Your task to perform on an android device: Clear the shopping cart on bestbuy. Search for logitech g910 on bestbuy, select the first entry, add it to the cart, then select checkout. Image 0: 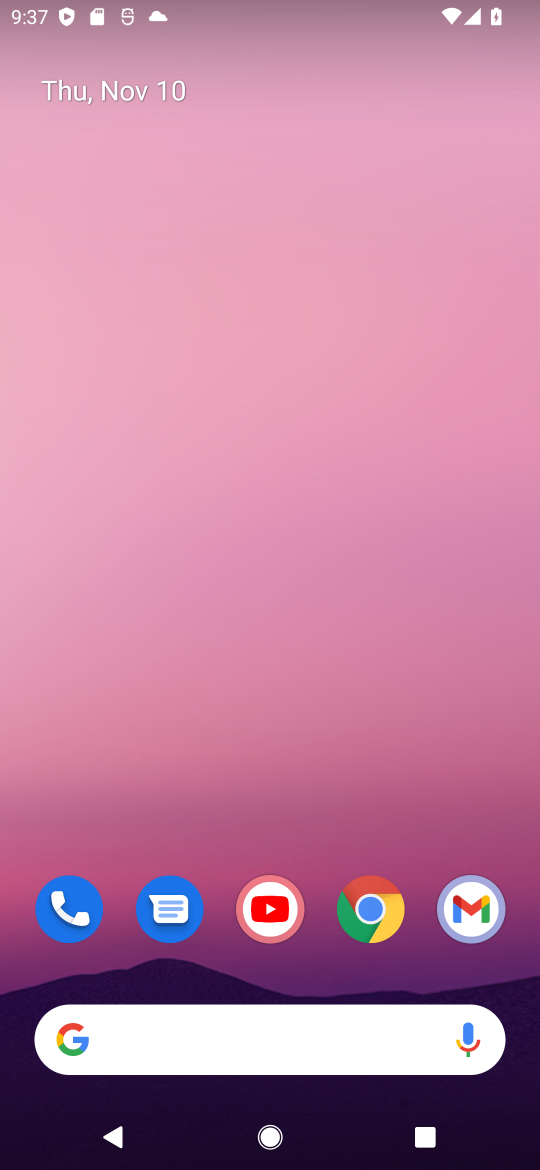
Step 0: drag from (295, 750) to (316, 361)
Your task to perform on an android device: Clear the shopping cart on bestbuy. Search for logitech g910 on bestbuy, select the first entry, add it to the cart, then select checkout. Image 1: 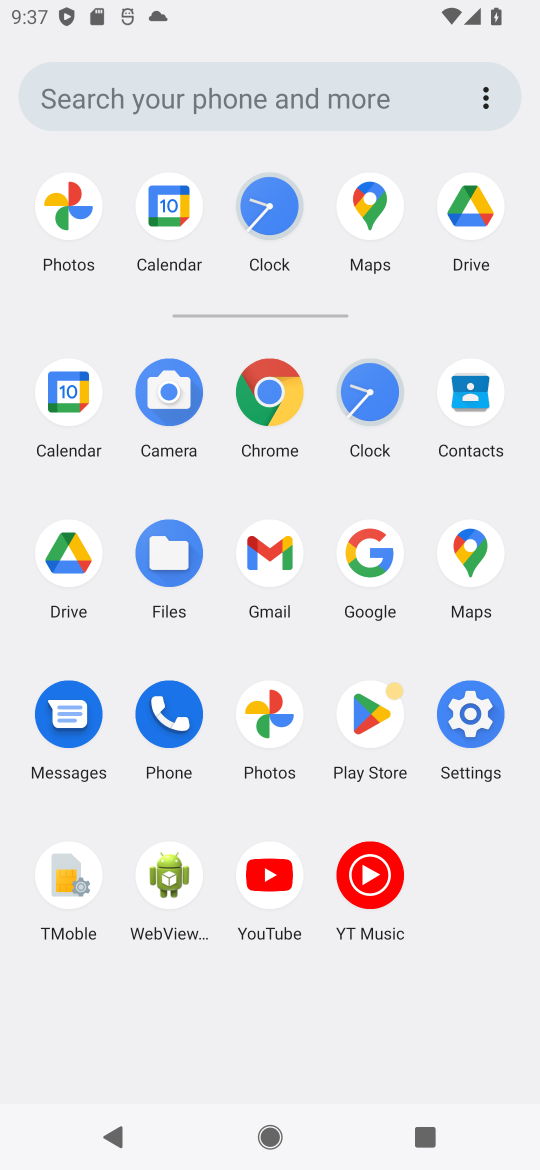
Step 1: click (359, 533)
Your task to perform on an android device: Clear the shopping cart on bestbuy. Search for logitech g910 on bestbuy, select the first entry, add it to the cart, then select checkout. Image 2: 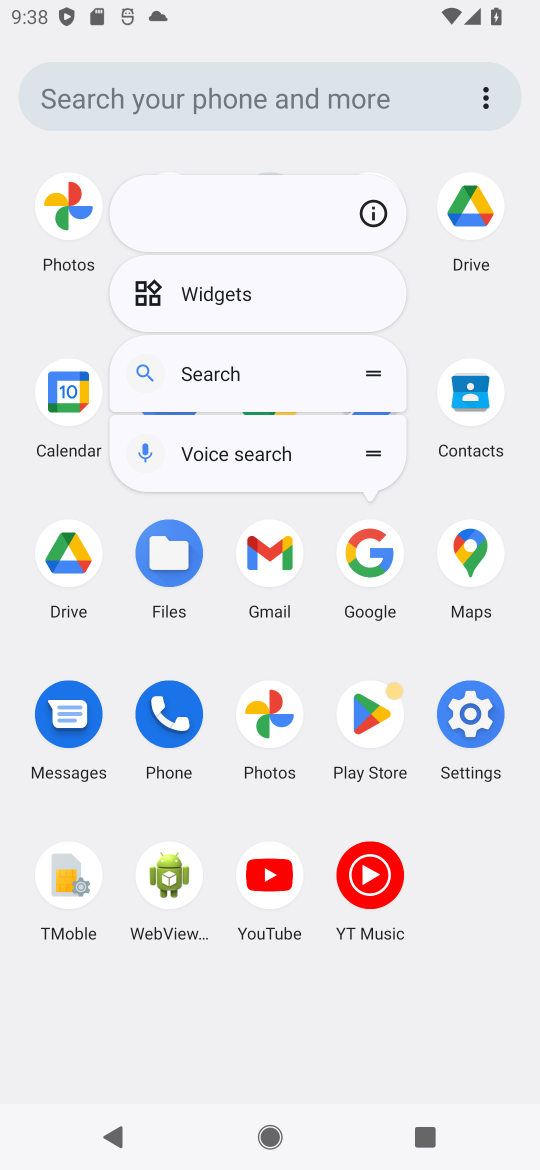
Step 2: click (373, 537)
Your task to perform on an android device: Clear the shopping cart on bestbuy. Search for logitech g910 on bestbuy, select the first entry, add it to the cart, then select checkout. Image 3: 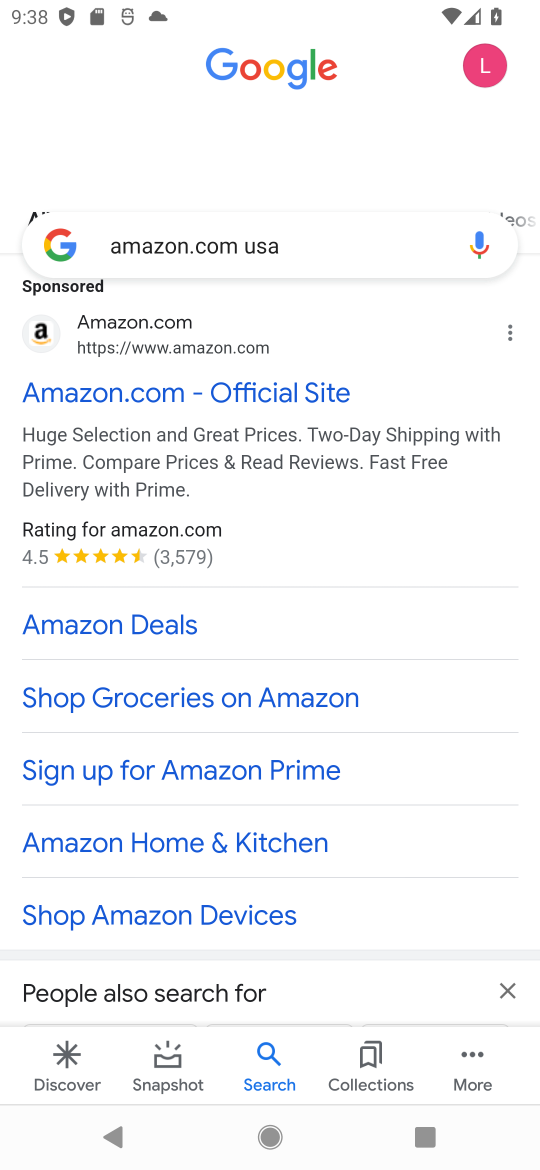
Step 3: click (234, 245)
Your task to perform on an android device: Clear the shopping cart on bestbuy. Search for logitech g910 on bestbuy, select the first entry, add it to the cart, then select checkout. Image 4: 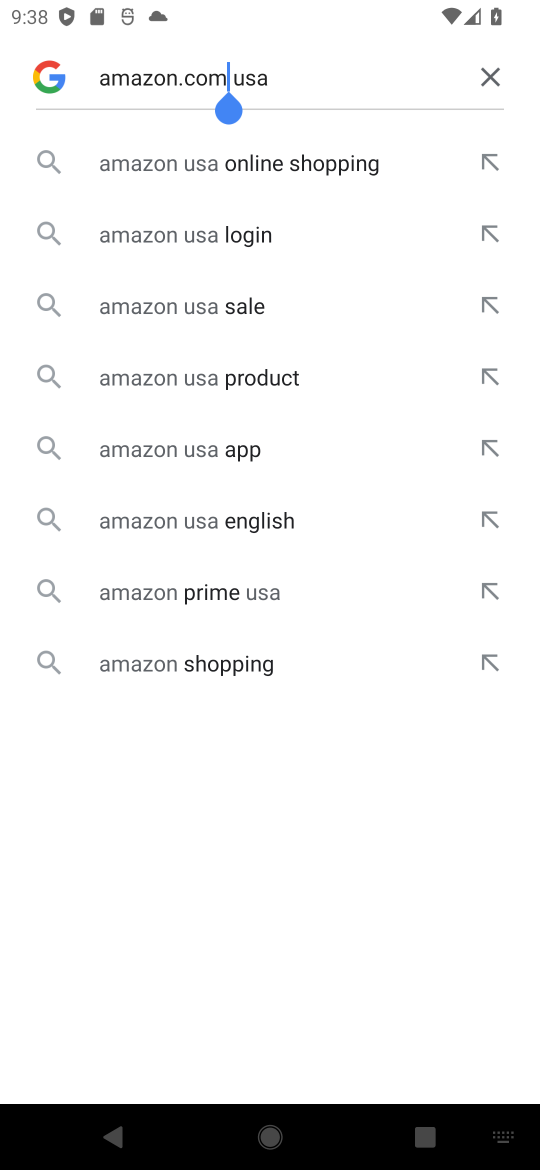
Step 4: click (494, 75)
Your task to perform on an android device: Clear the shopping cart on bestbuy. Search for logitech g910 on bestbuy, select the first entry, add it to the cart, then select checkout. Image 5: 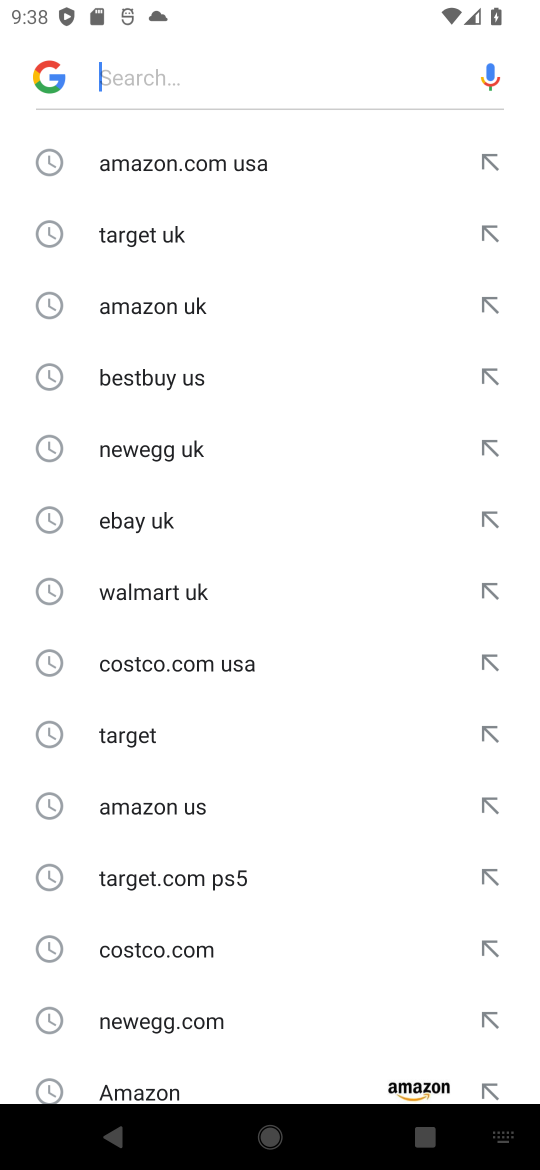
Step 5: click (195, 62)
Your task to perform on an android device: Clear the shopping cart on bestbuy. Search for logitech g910 on bestbuy, select the first entry, add it to the cart, then select checkout. Image 6: 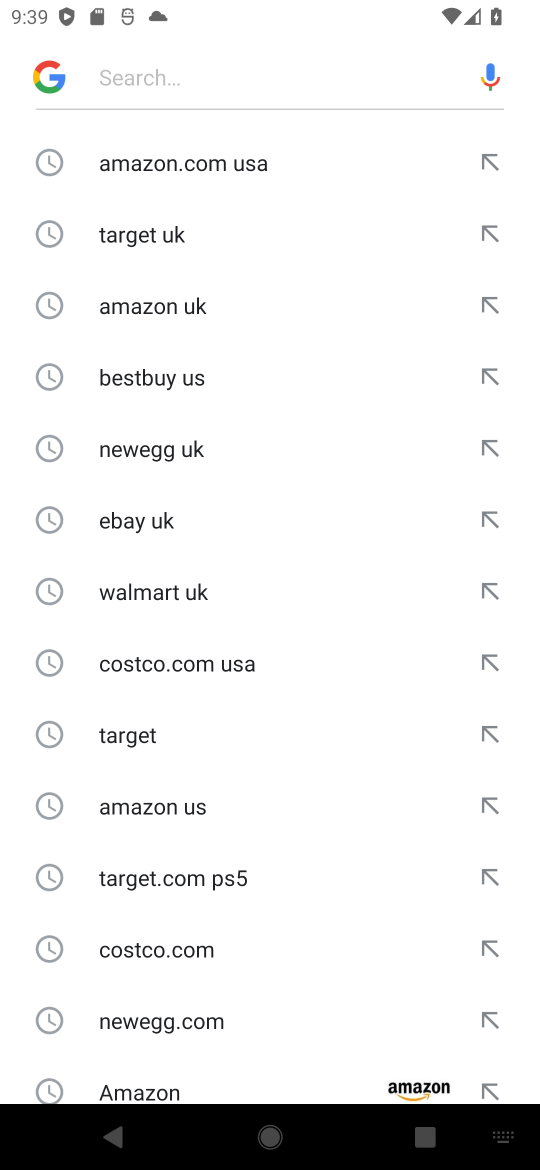
Step 6: type "bestbuy "
Your task to perform on an android device: Clear the shopping cart on bestbuy. Search for logitech g910 on bestbuy, select the first entry, add it to the cart, then select checkout. Image 7: 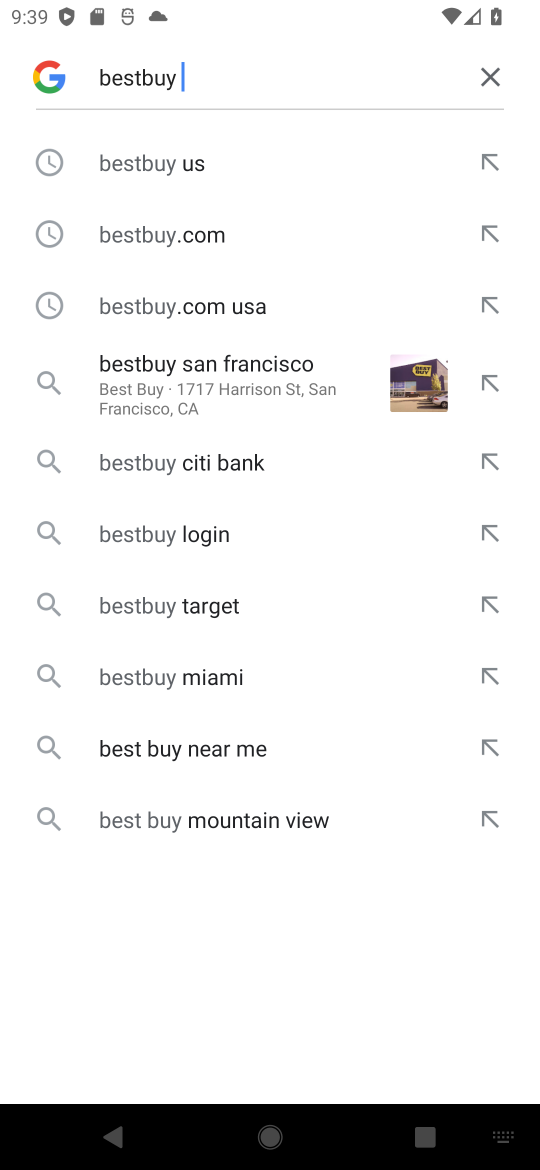
Step 7: click (138, 163)
Your task to perform on an android device: Clear the shopping cart on bestbuy. Search for logitech g910 on bestbuy, select the first entry, add it to the cart, then select checkout. Image 8: 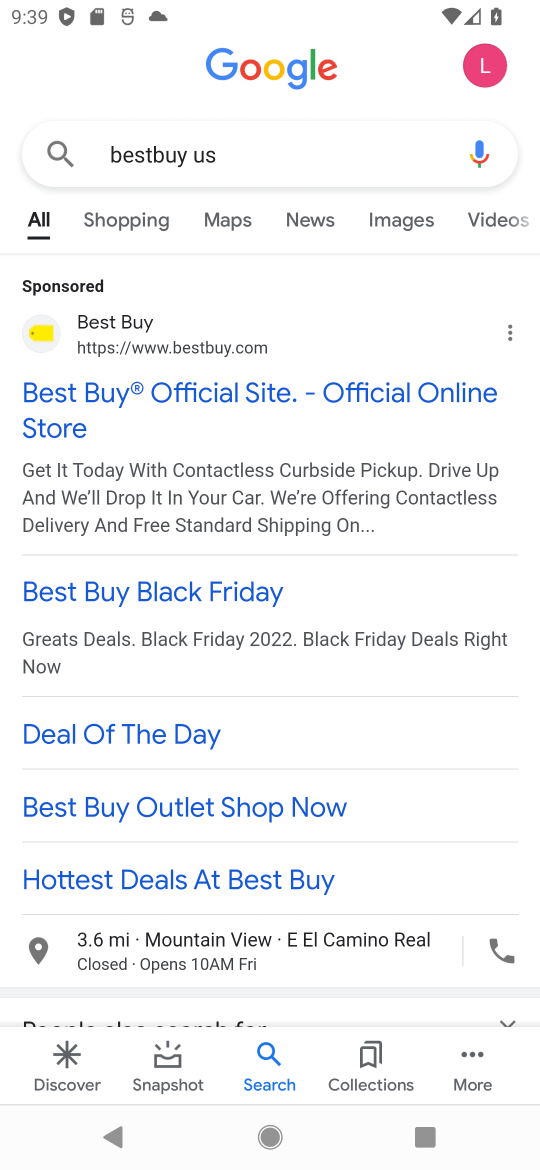
Step 8: click (33, 329)
Your task to perform on an android device: Clear the shopping cart on bestbuy. Search for logitech g910 on bestbuy, select the first entry, add it to the cart, then select checkout. Image 9: 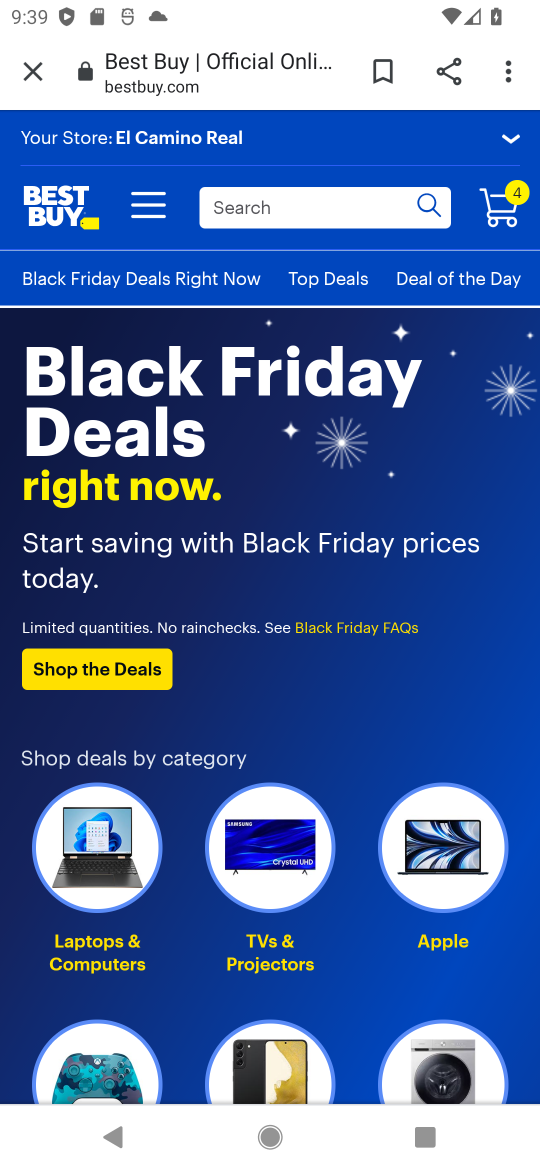
Step 9: click (315, 187)
Your task to perform on an android device: Clear the shopping cart on bestbuy. Search for logitech g910 on bestbuy, select the first entry, add it to the cart, then select checkout. Image 10: 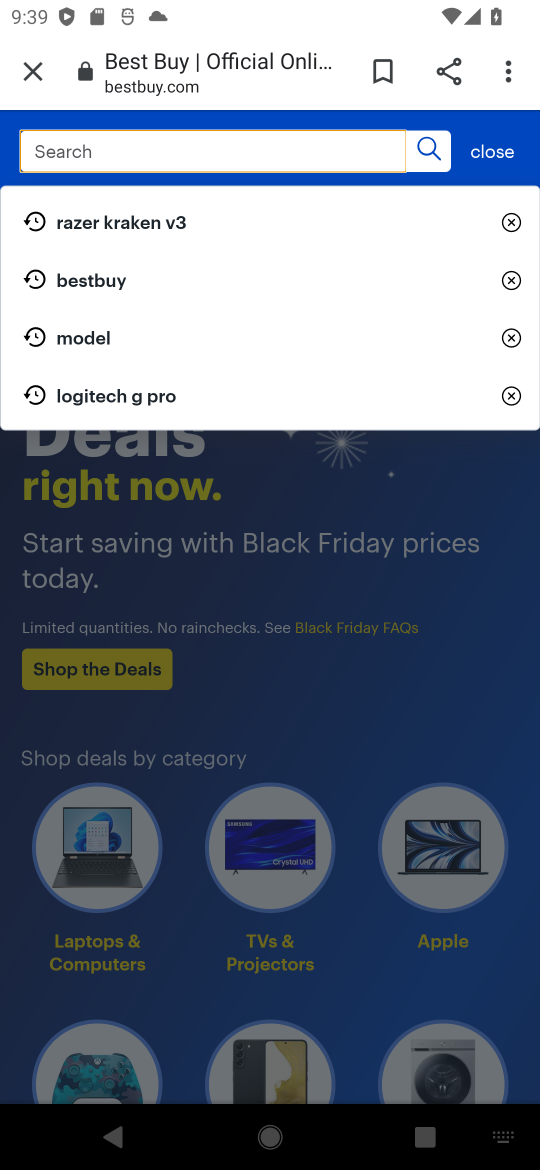
Step 10: type "logitech g910  "
Your task to perform on an android device: Clear the shopping cart on bestbuy. Search for logitech g910 on bestbuy, select the first entry, add it to the cart, then select checkout. Image 11: 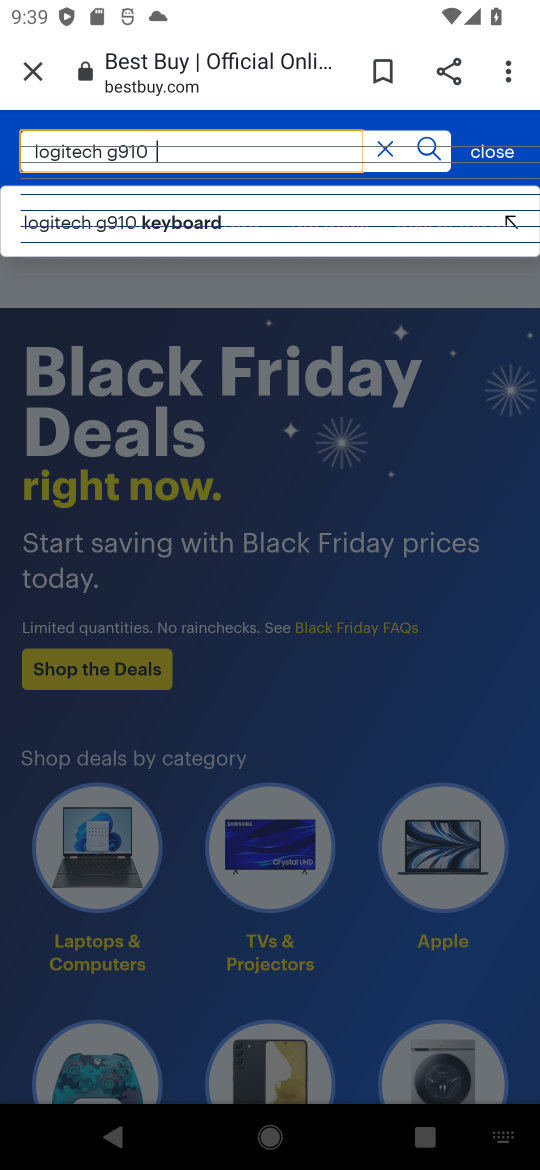
Step 11: click (153, 199)
Your task to perform on an android device: Clear the shopping cart on bestbuy. Search for logitech g910 on bestbuy, select the first entry, add it to the cart, then select checkout. Image 12: 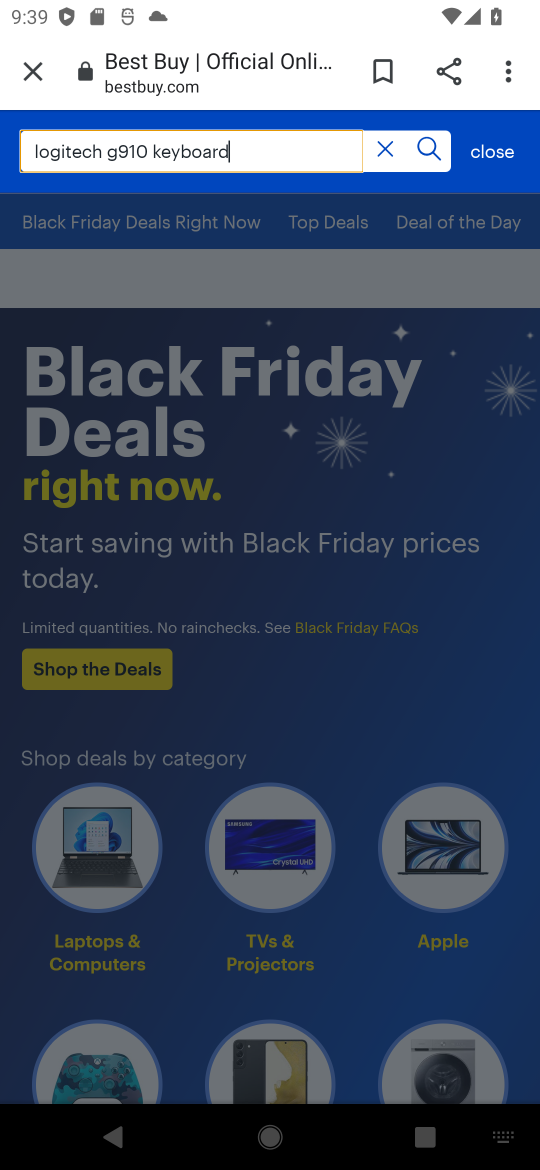
Step 12: click (153, 221)
Your task to perform on an android device: Clear the shopping cart on bestbuy. Search for logitech g910 on bestbuy, select the first entry, add it to the cart, then select checkout. Image 13: 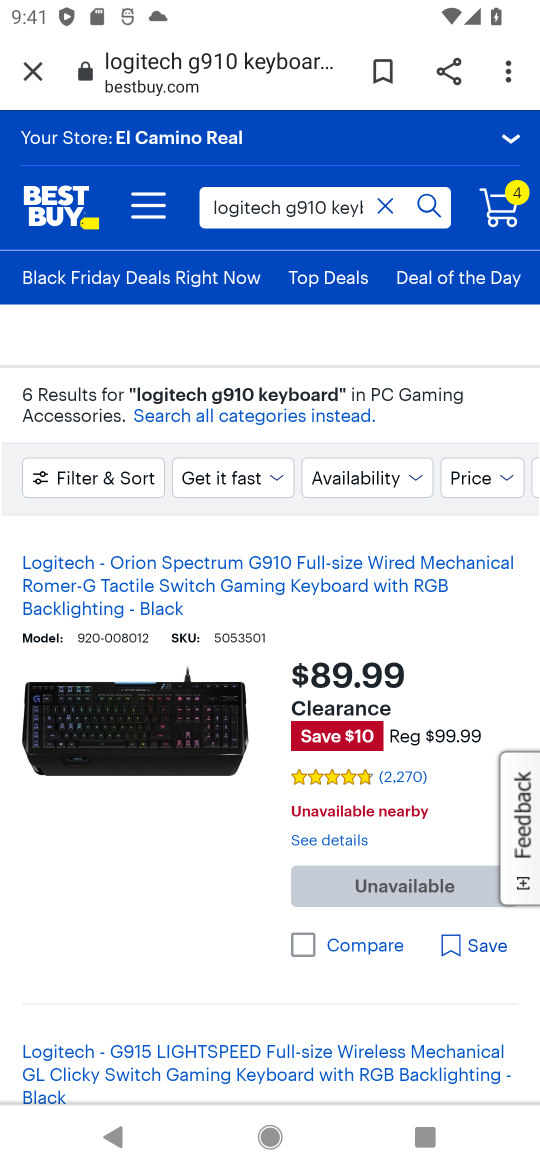
Step 13: drag from (285, 767) to (282, 261)
Your task to perform on an android device: Clear the shopping cart on bestbuy. Search for logitech g910 on bestbuy, select the first entry, add it to the cart, then select checkout. Image 14: 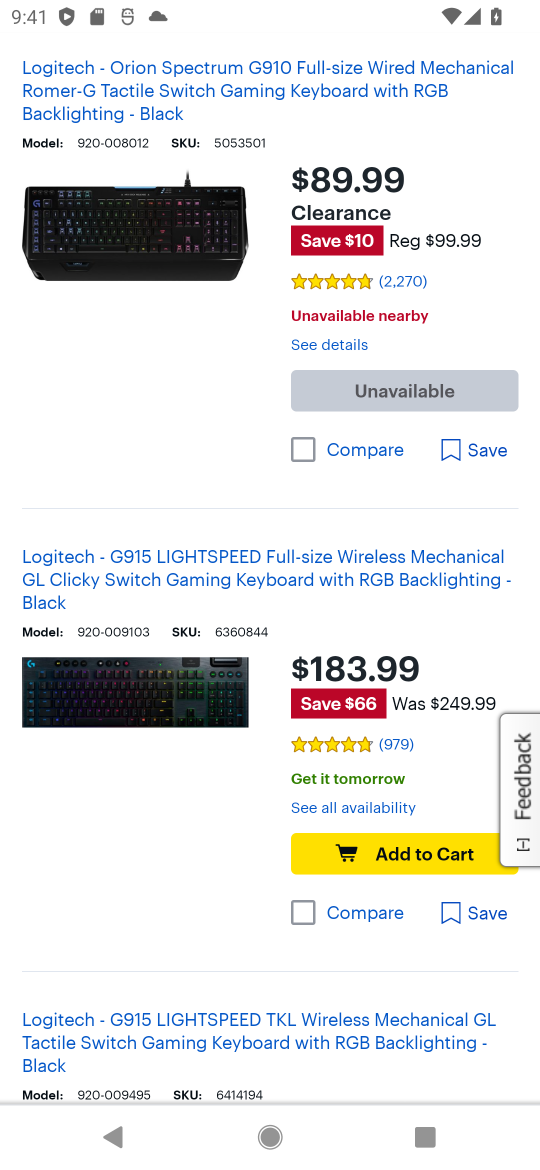
Step 14: click (361, 842)
Your task to perform on an android device: Clear the shopping cart on bestbuy. Search for logitech g910 on bestbuy, select the first entry, add it to the cart, then select checkout. Image 15: 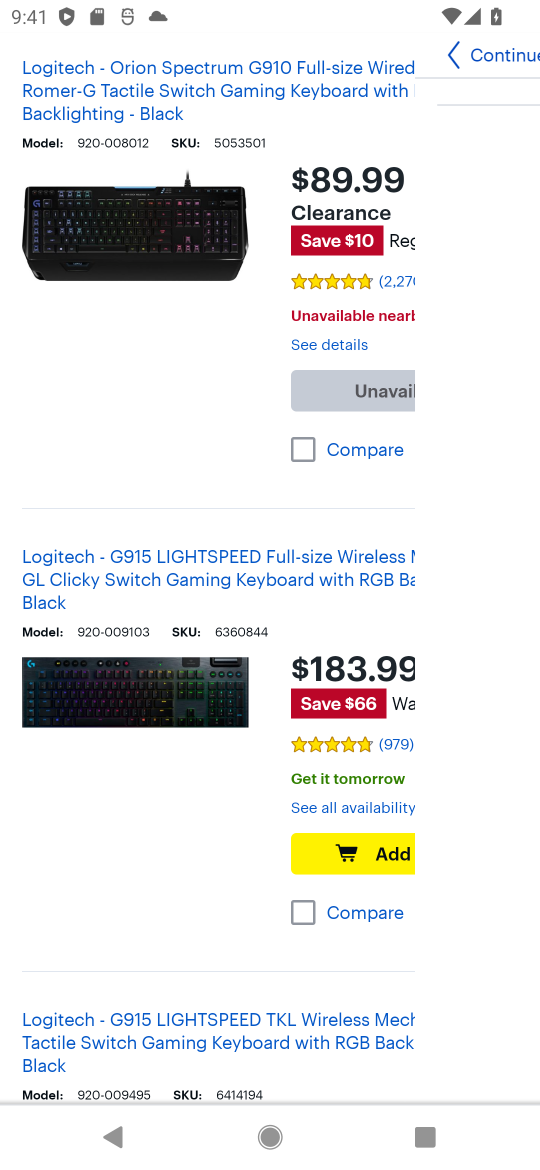
Step 15: task complete